Your task to perform on an android device: empty trash in google photos Image 0: 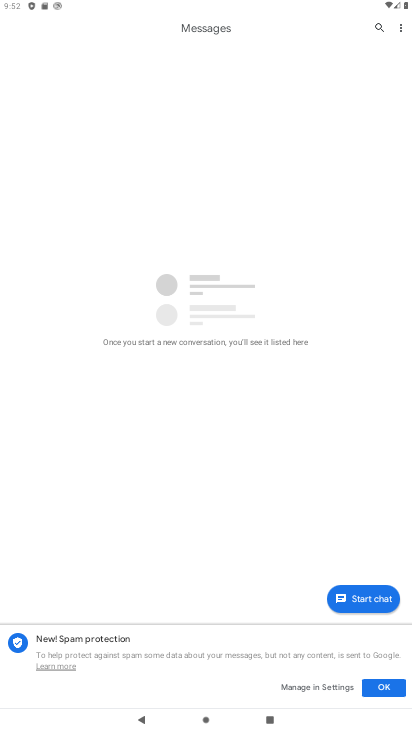
Step 0: press home button
Your task to perform on an android device: empty trash in google photos Image 1: 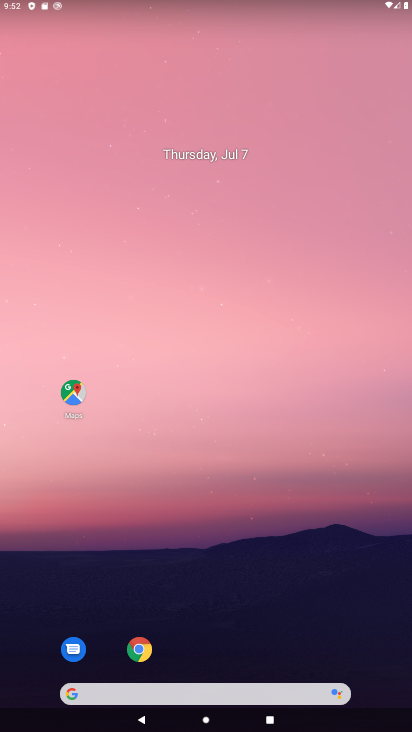
Step 1: drag from (254, 603) to (240, 10)
Your task to perform on an android device: empty trash in google photos Image 2: 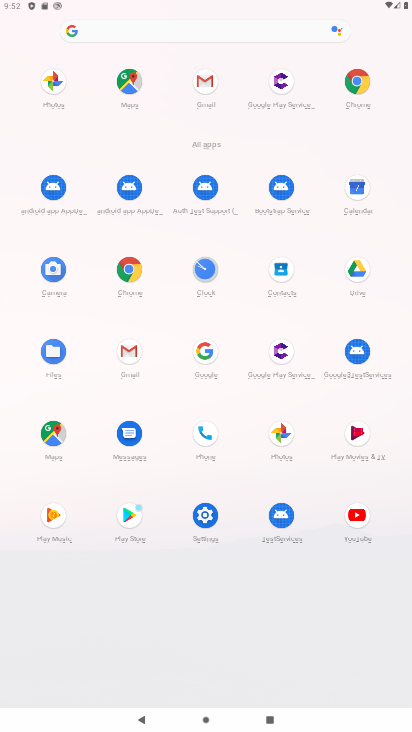
Step 2: click (44, 88)
Your task to perform on an android device: empty trash in google photos Image 3: 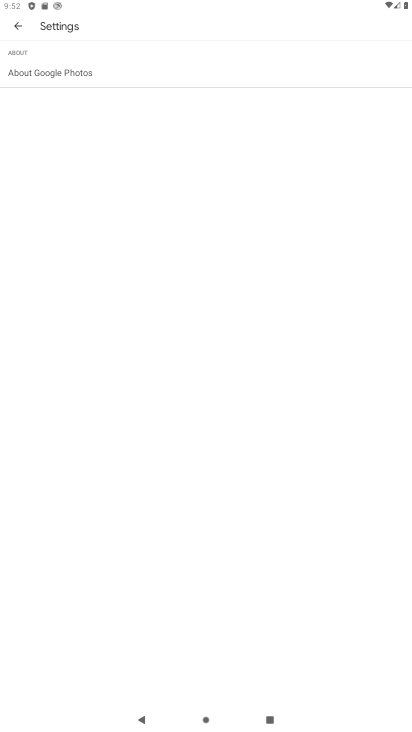
Step 3: click (15, 29)
Your task to perform on an android device: empty trash in google photos Image 4: 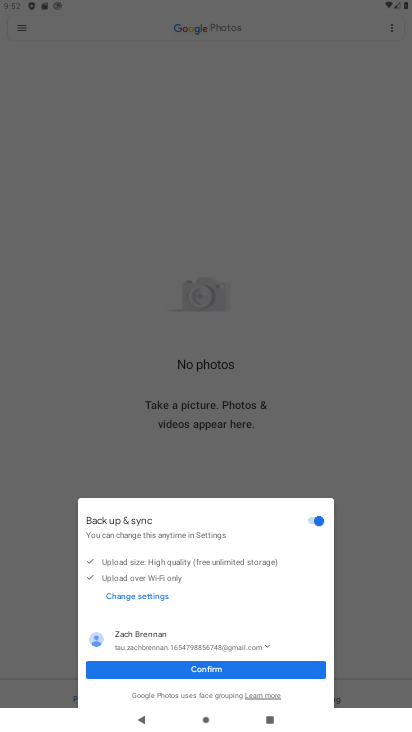
Step 4: click (222, 664)
Your task to perform on an android device: empty trash in google photos Image 5: 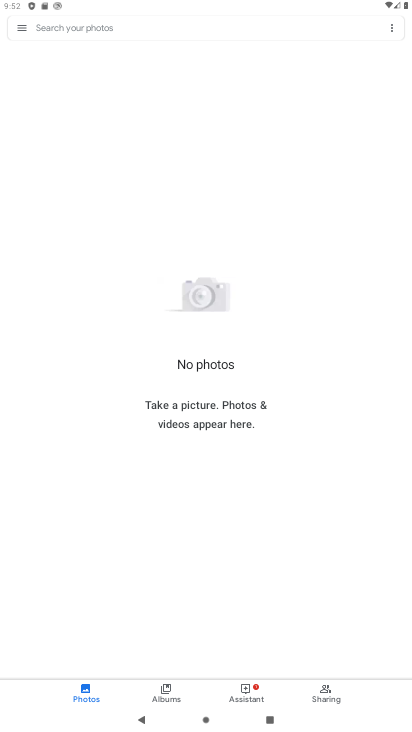
Step 5: click (23, 31)
Your task to perform on an android device: empty trash in google photos Image 6: 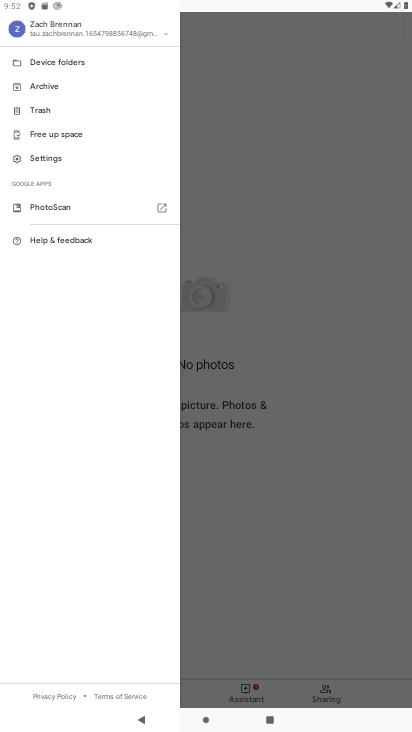
Step 6: click (41, 108)
Your task to perform on an android device: empty trash in google photos Image 7: 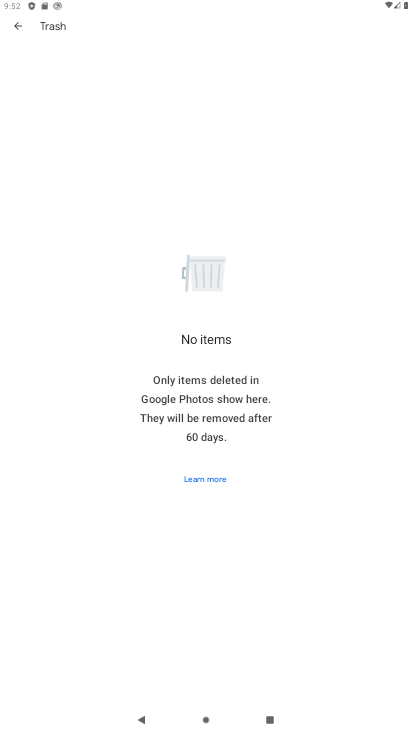
Step 7: task complete